Your task to perform on an android device: turn on wifi Image 0: 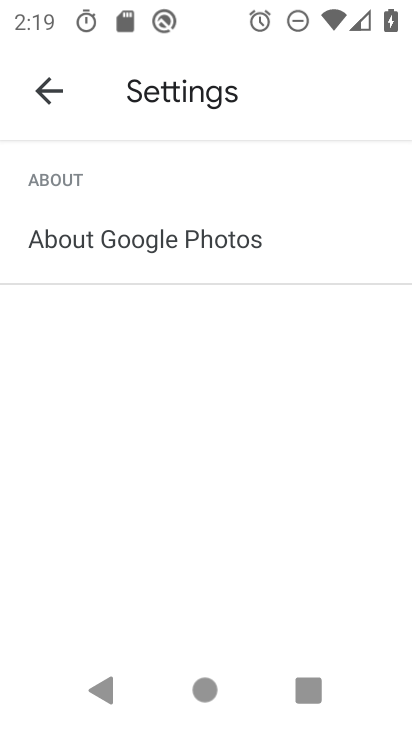
Step 0: press home button
Your task to perform on an android device: turn on wifi Image 1: 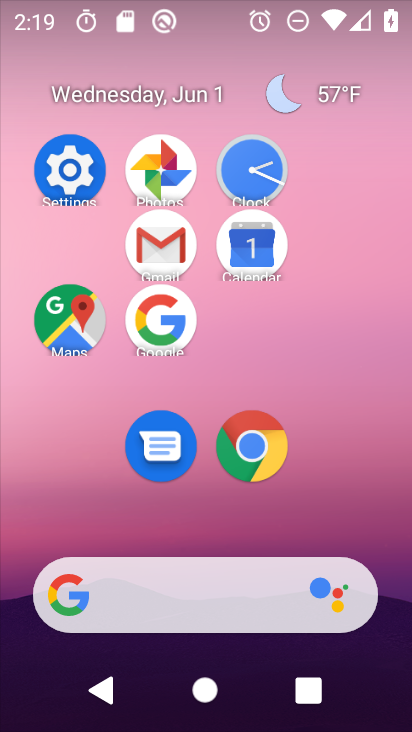
Step 1: click (100, 178)
Your task to perform on an android device: turn on wifi Image 2: 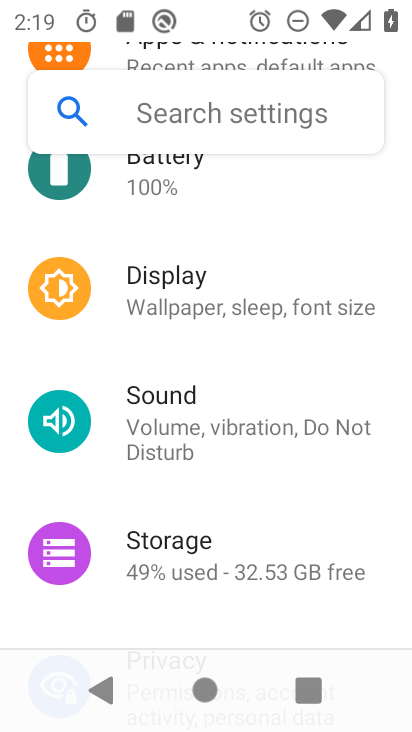
Step 2: drag from (259, 240) to (282, 587)
Your task to perform on an android device: turn on wifi Image 3: 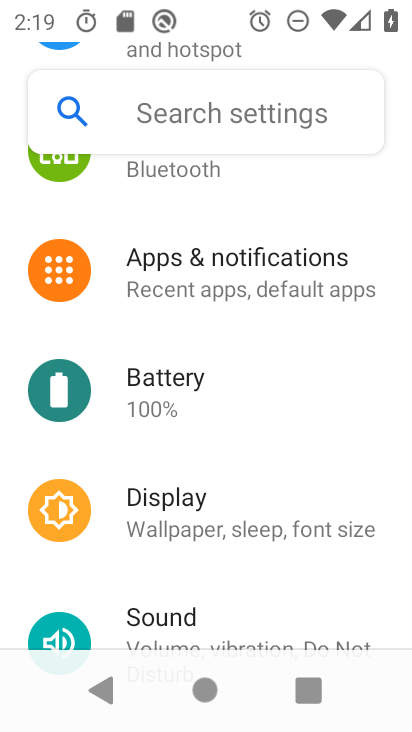
Step 3: drag from (309, 188) to (354, 626)
Your task to perform on an android device: turn on wifi Image 4: 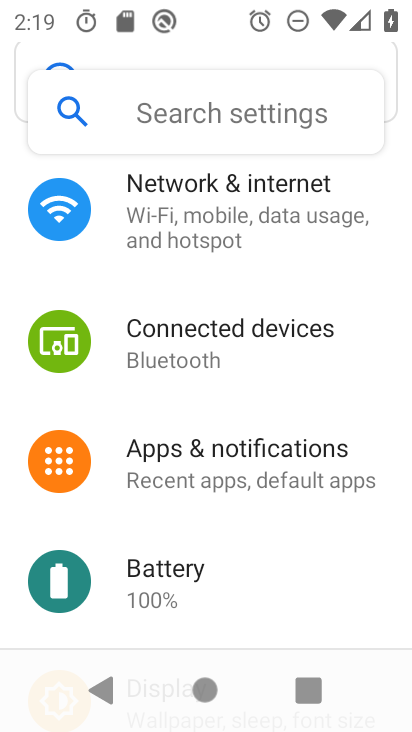
Step 4: click (265, 193)
Your task to perform on an android device: turn on wifi Image 5: 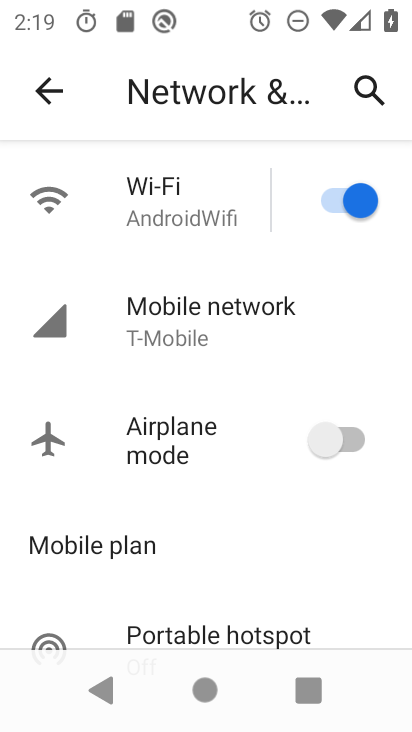
Step 5: task complete